Your task to perform on an android device: check battery use Image 0: 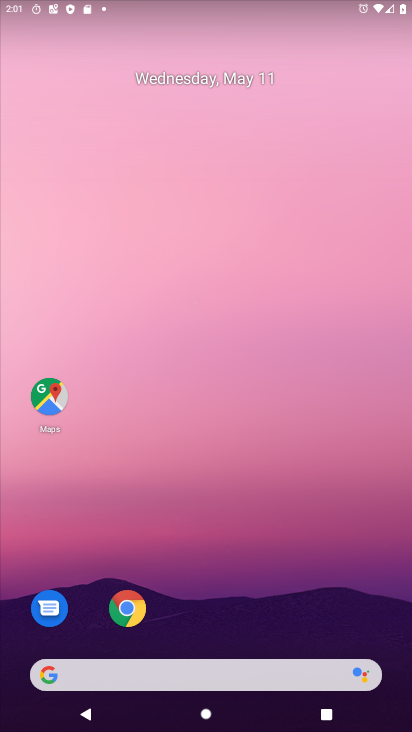
Step 0: drag from (227, 591) to (272, 1)
Your task to perform on an android device: check battery use Image 1: 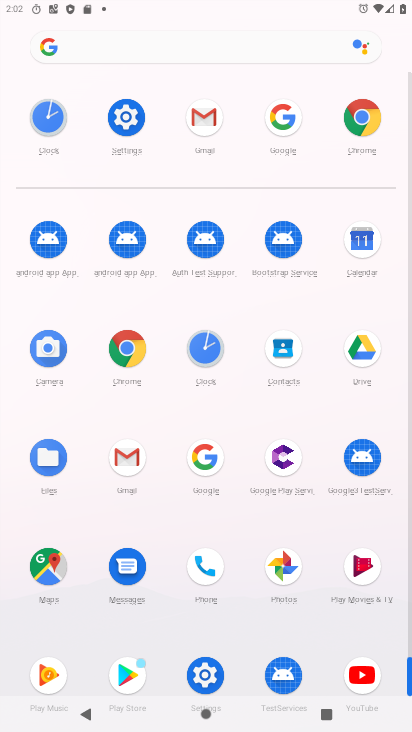
Step 1: click (124, 133)
Your task to perform on an android device: check battery use Image 2: 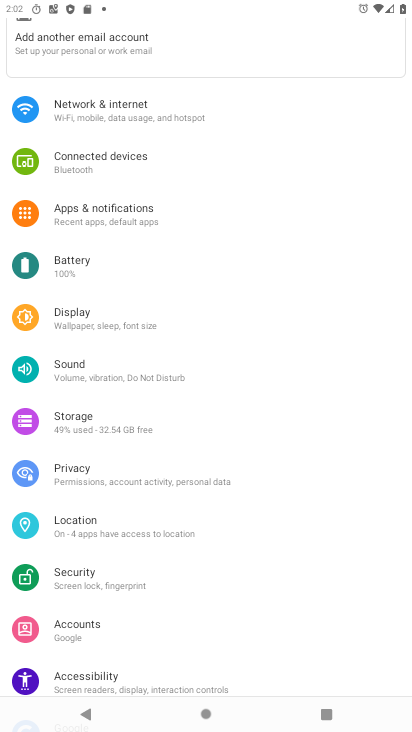
Step 2: click (133, 263)
Your task to perform on an android device: check battery use Image 3: 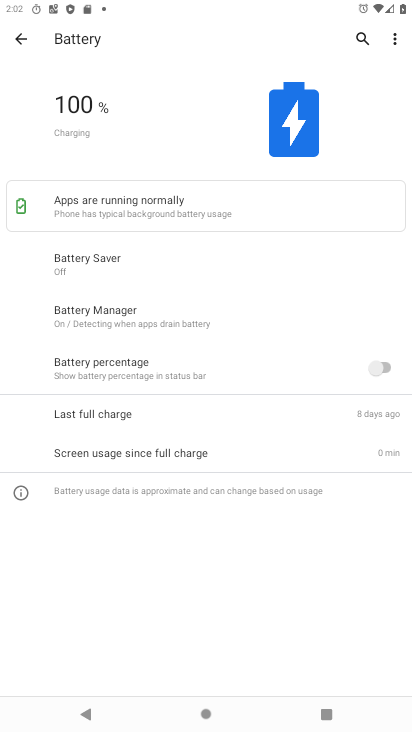
Step 3: task complete